Your task to perform on an android device: turn off data saver in the chrome app Image 0: 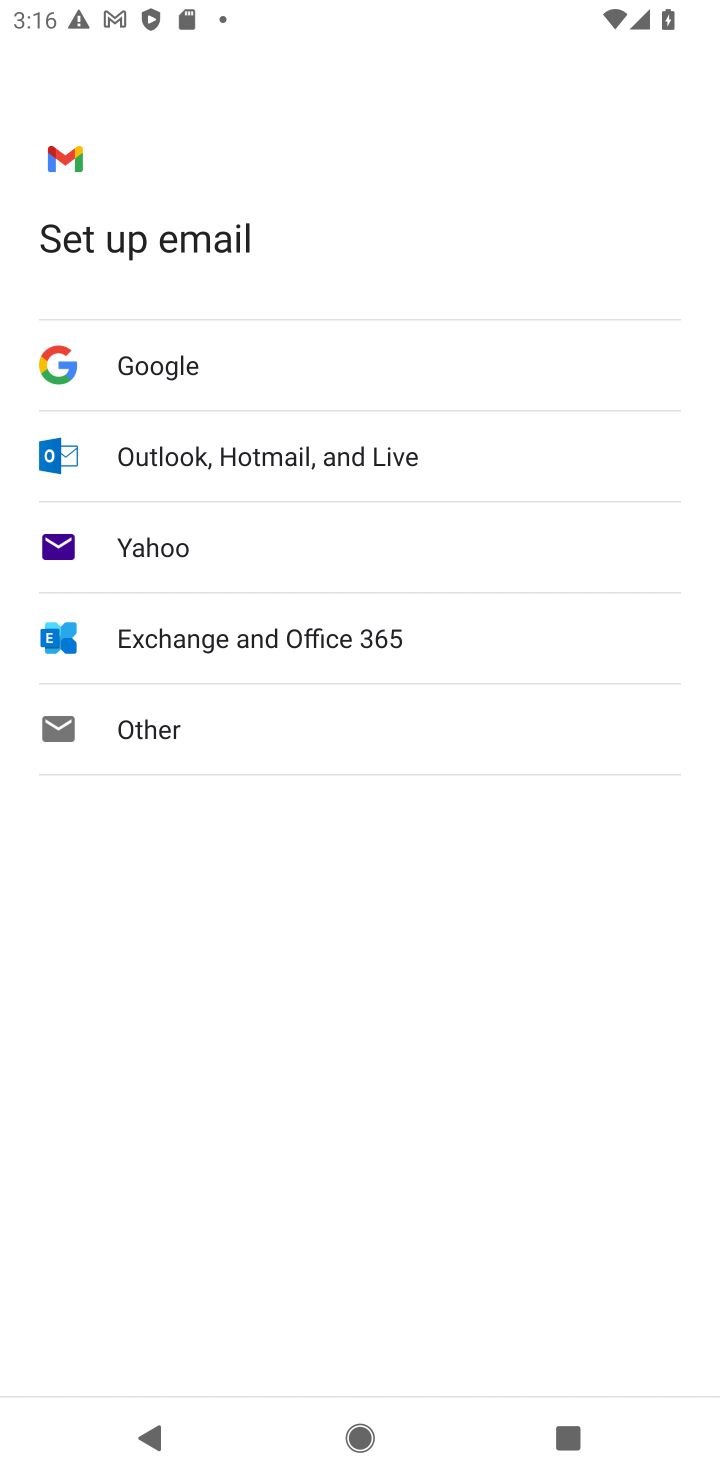
Step 0: press back button
Your task to perform on an android device: turn off data saver in the chrome app Image 1: 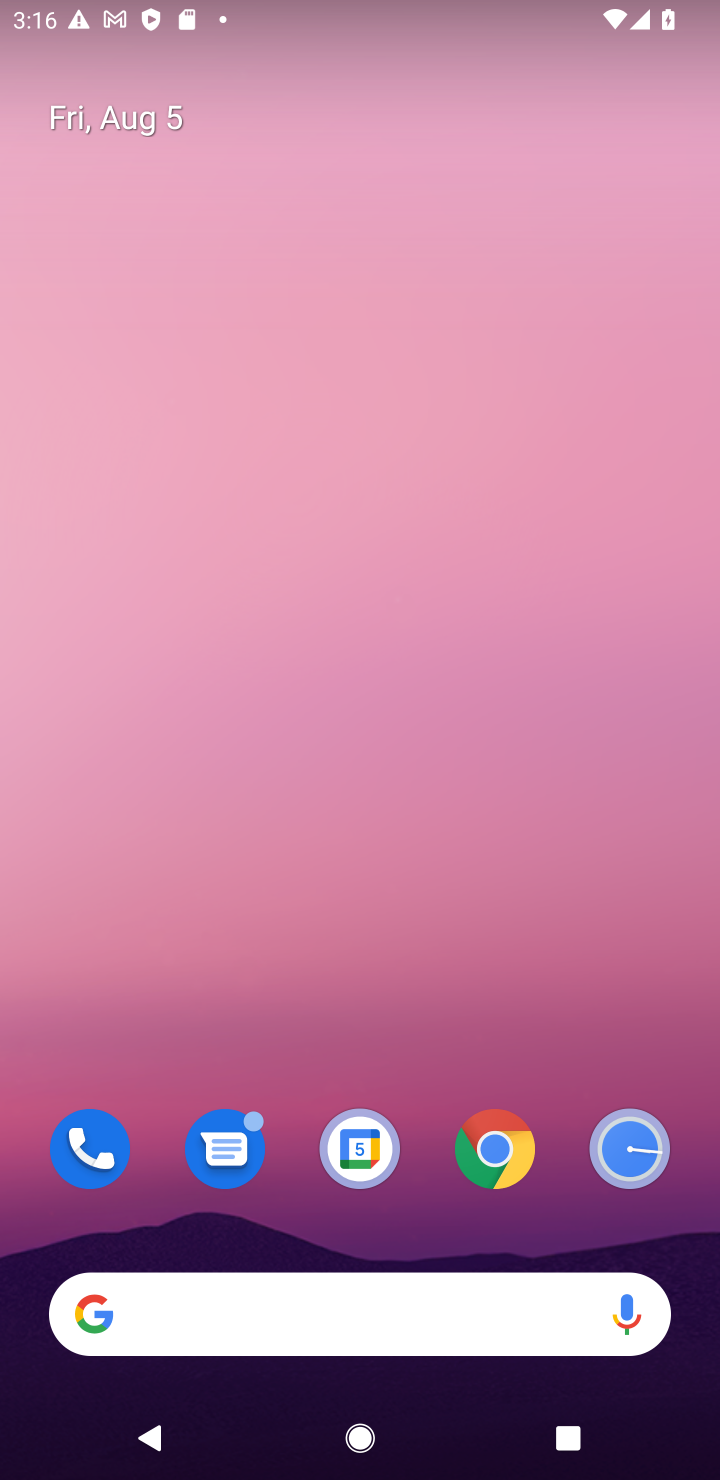
Step 1: click (484, 1167)
Your task to perform on an android device: turn off data saver in the chrome app Image 2: 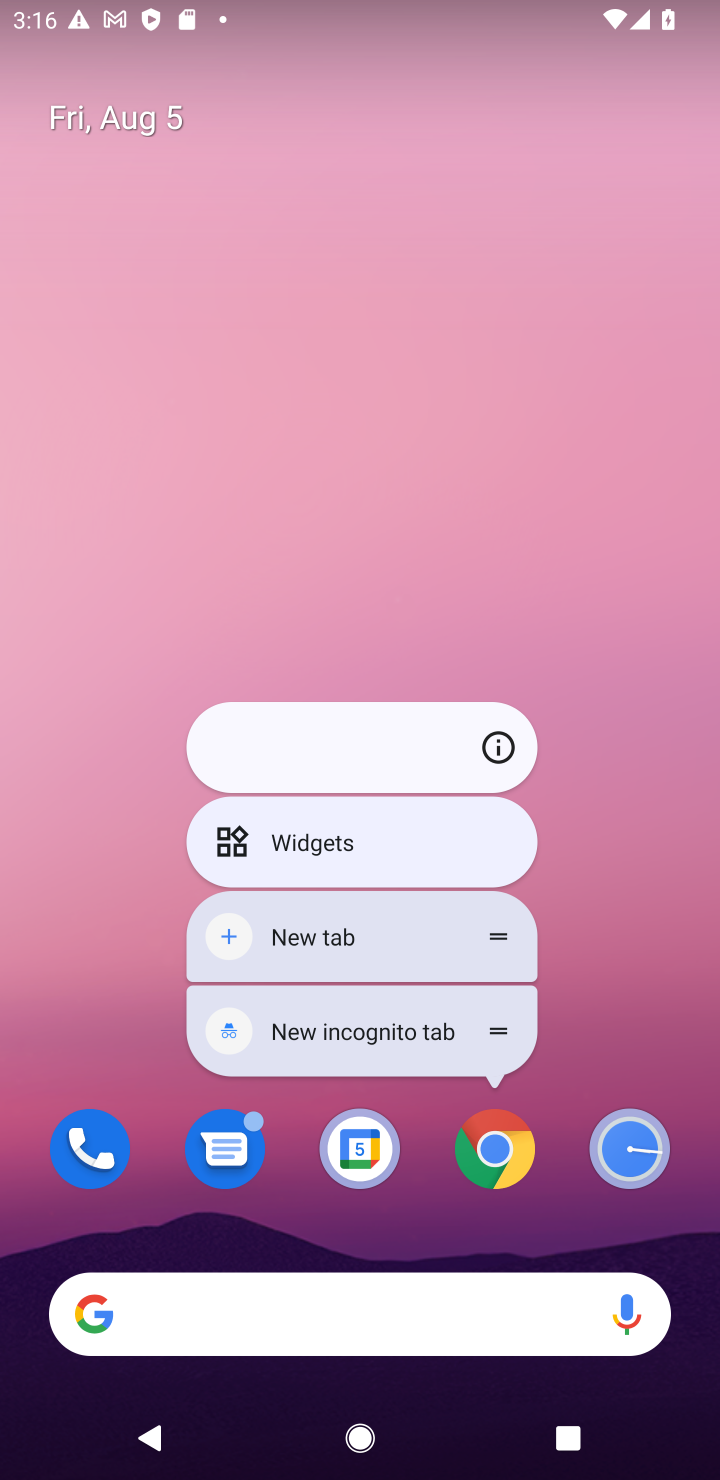
Step 2: click (528, 1162)
Your task to perform on an android device: turn off data saver in the chrome app Image 3: 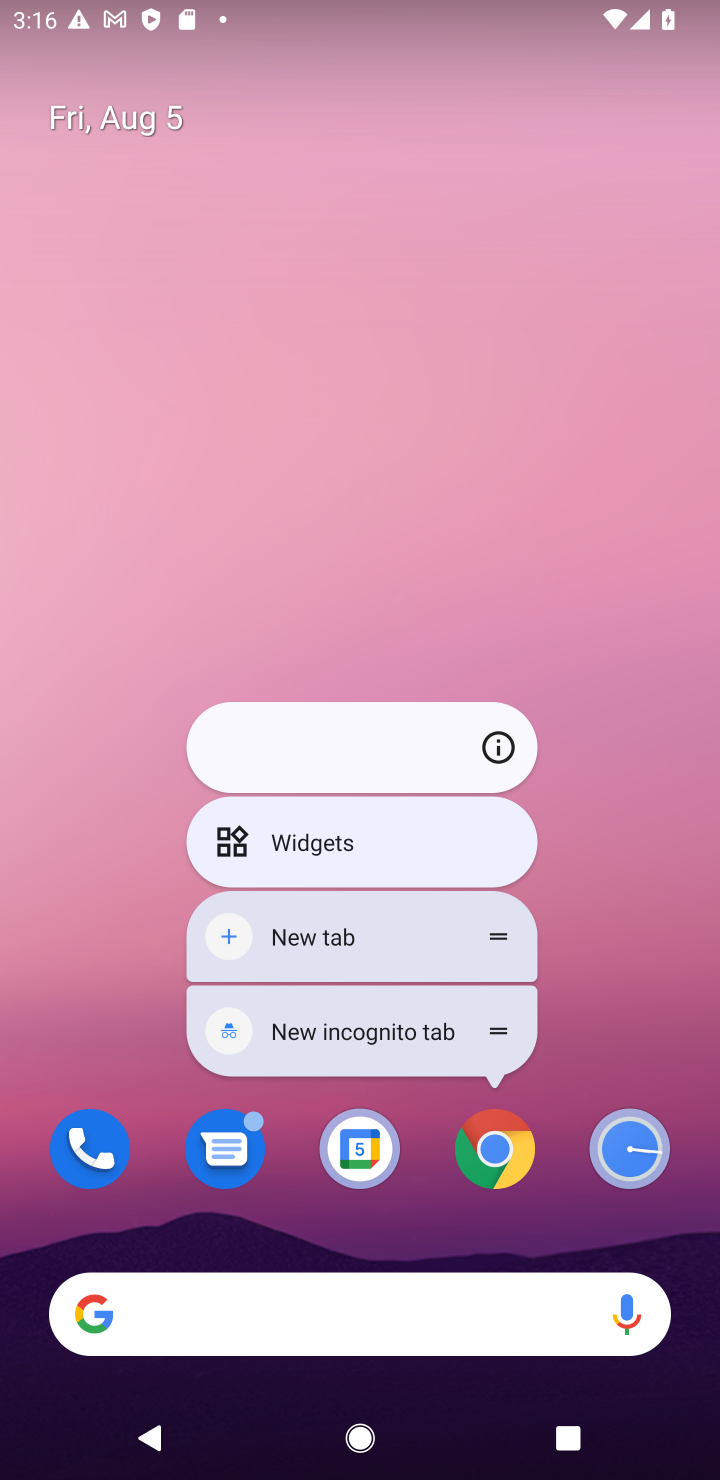
Step 3: click (499, 1165)
Your task to perform on an android device: turn off data saver in the chrome app Image 4: 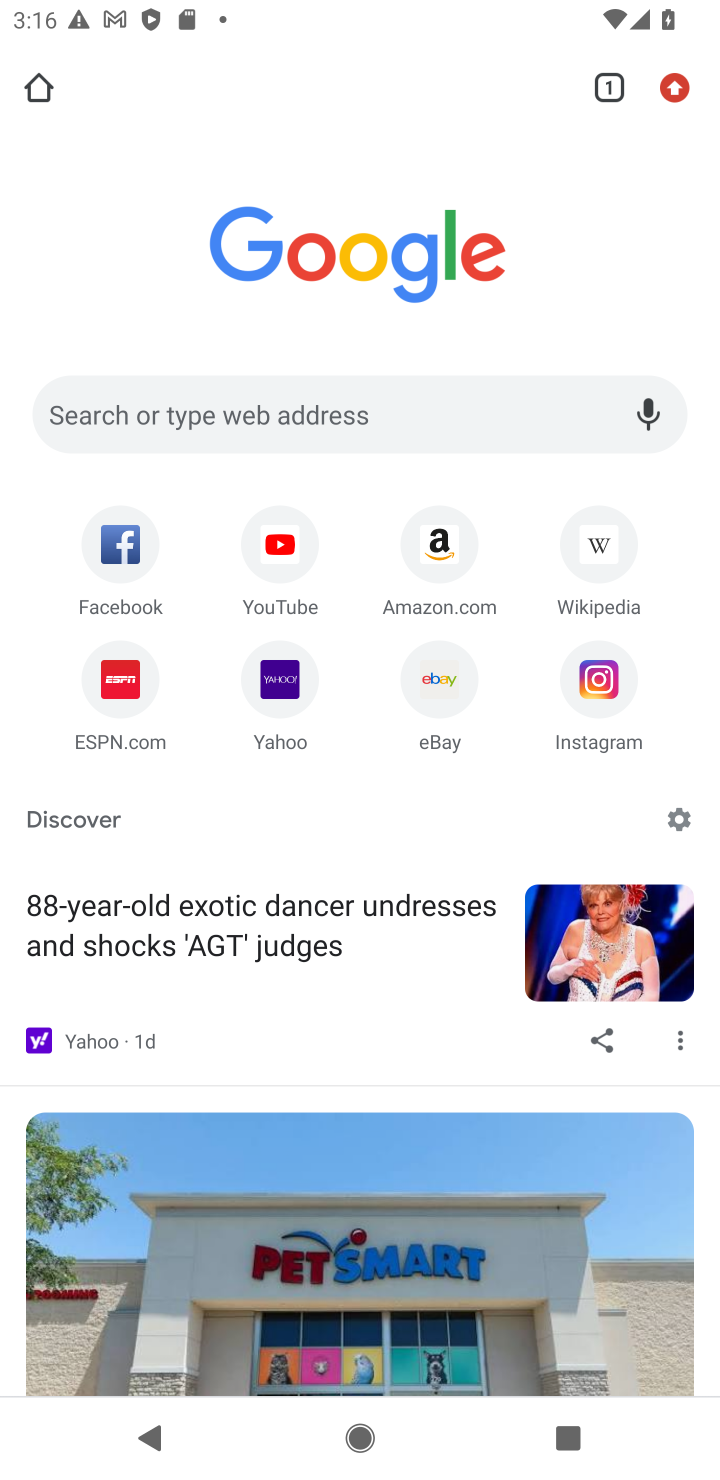
Step 4: drag from (663, 82) to (401, 878)
Your task to perform on an android device: turn off data saver in the chrome app Image 5: 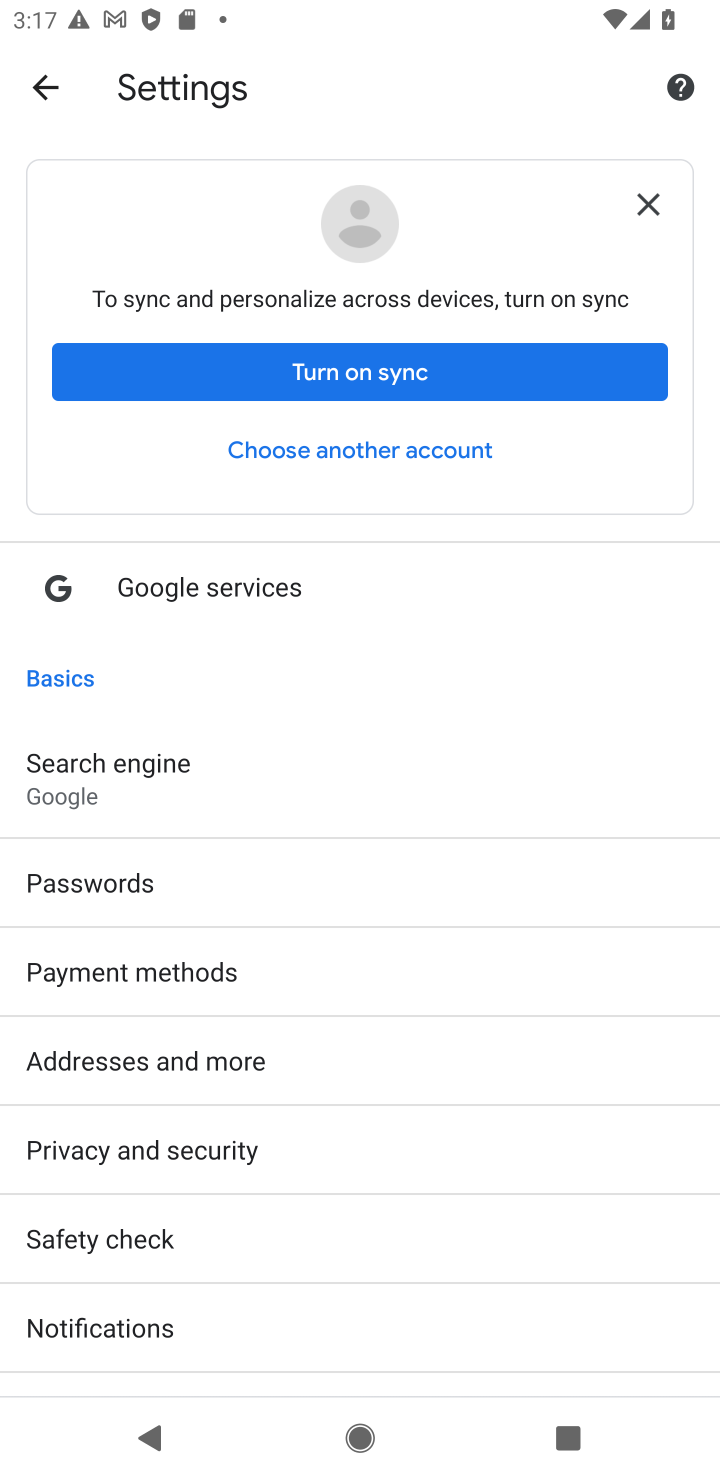
Step 5: drag from (401, 1288) to (603, 159)
Your task to perform on an android device: turn off data saver in the chrome app Image 6: 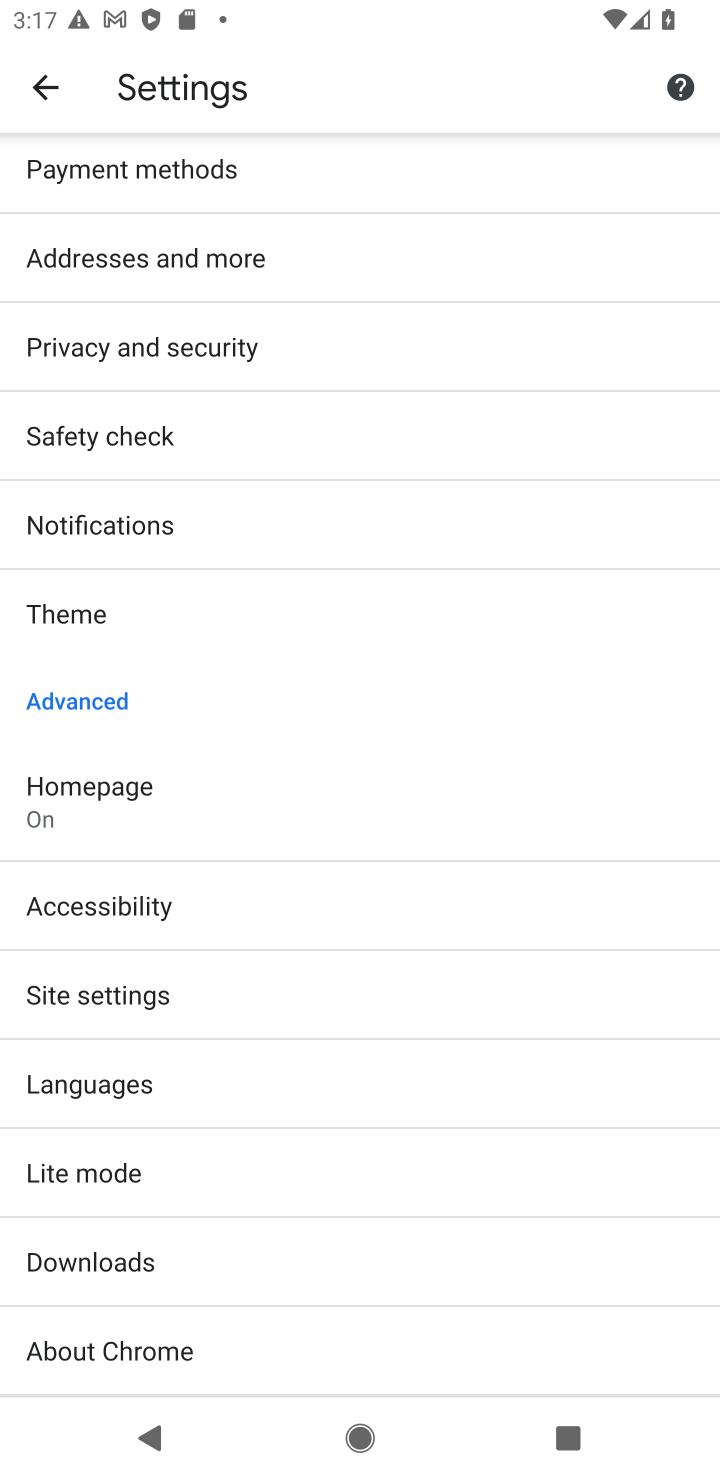
Step 6: click (152, 1186)
Your task to perform on an android device: turn off data saver in the chrome app Image 7: 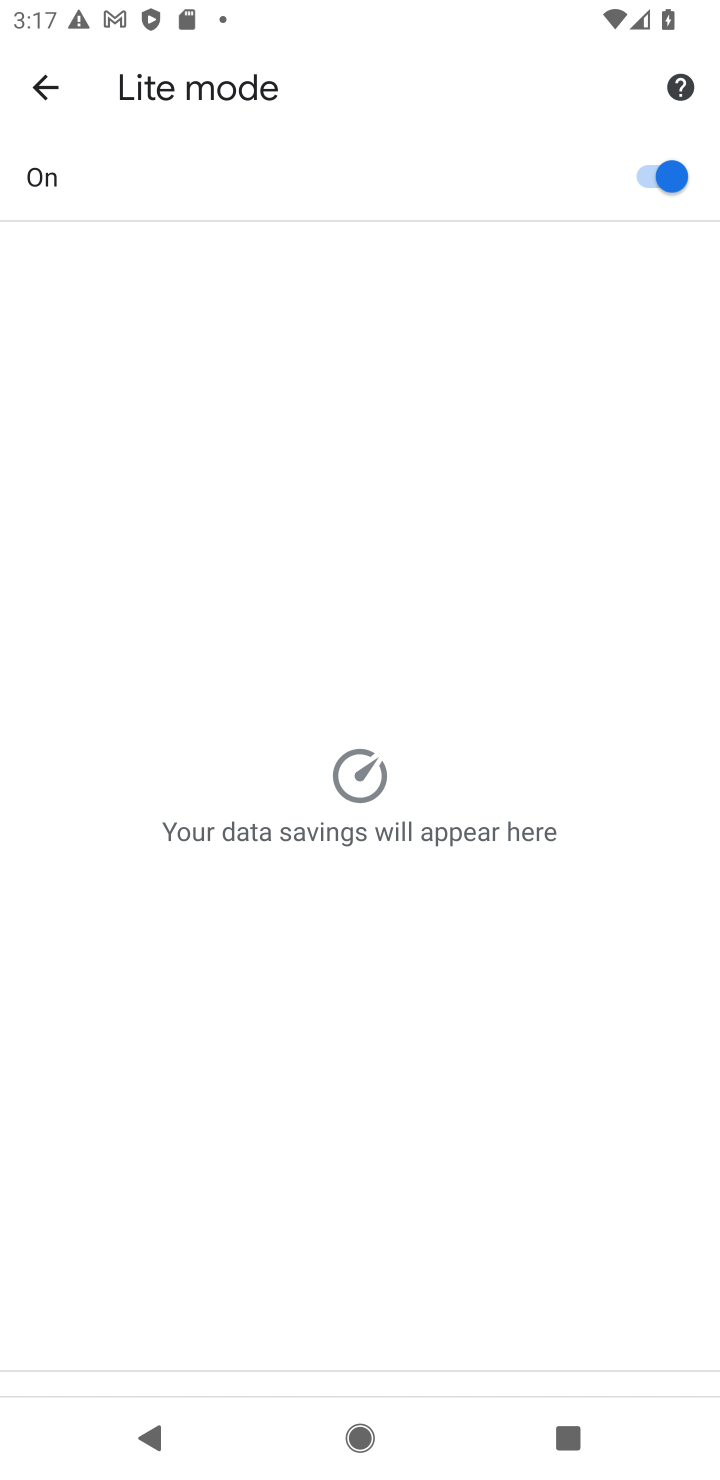
Step 7: click (673, 169)
Your task to perform on an android device: turn off data saver in the chrome app Image 8: 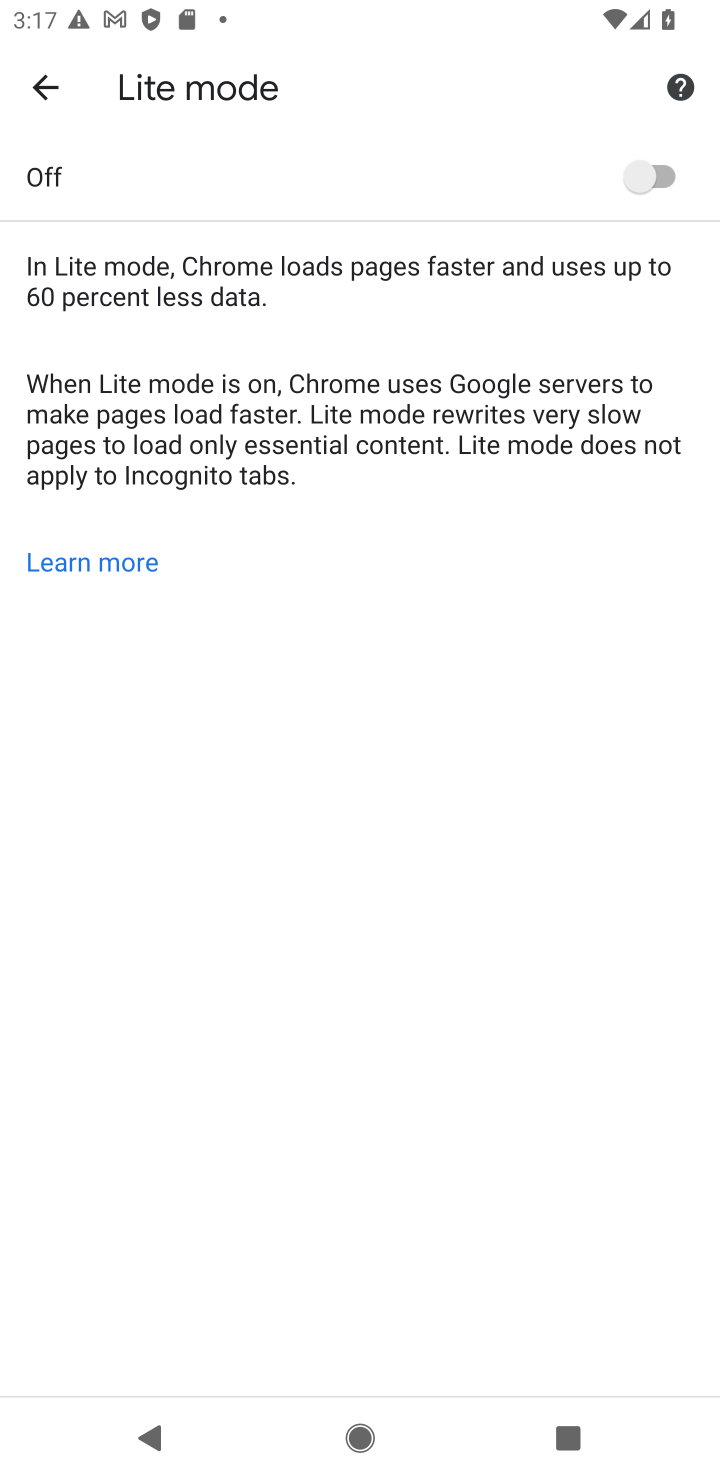
Step 8: task complete